Your task to perform on an android device: Turn off the flashlight Image 0: 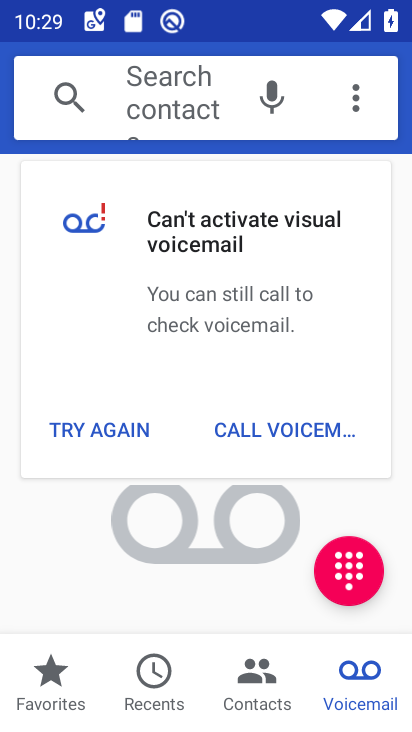
Step 0: press home button
Your task to perform on an android device: Turn off the flashlight Image 1: 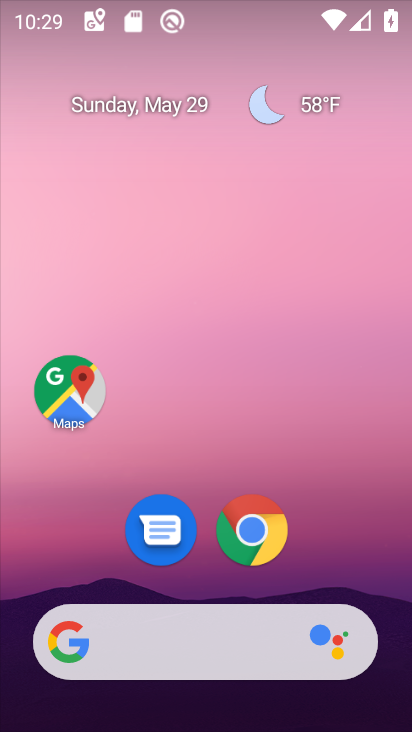
Step 1: task complete